Your task to perform on an android device: Open battery settings Image 0: 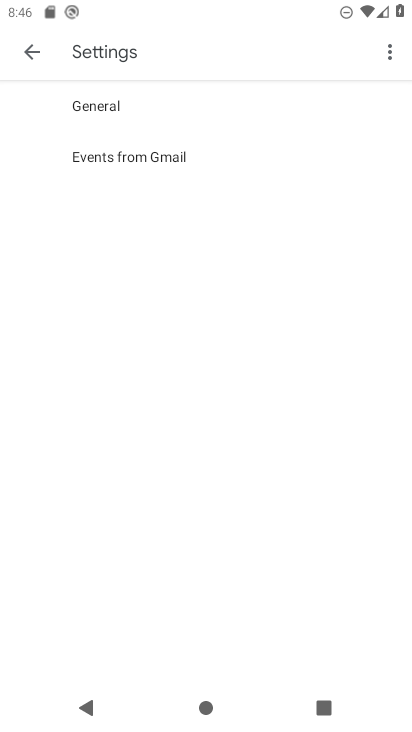
Step 0: press home button
Your task to perform on an android device: Open battery settings Image 1: 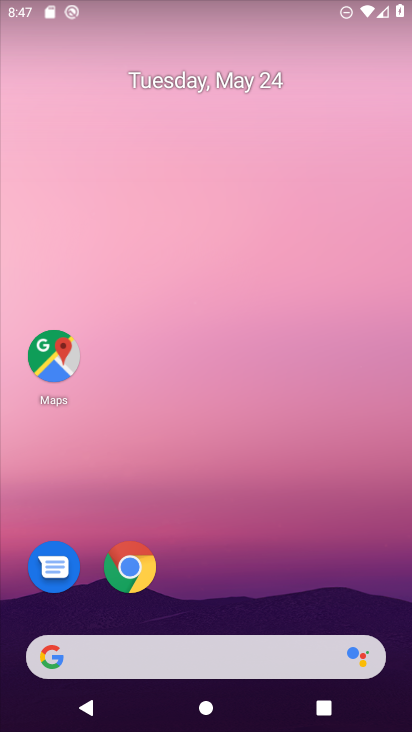
Step 1: drag from (160, 653) to (308, 129)
Your task to perform on an android device: Open battery settings Image 2: 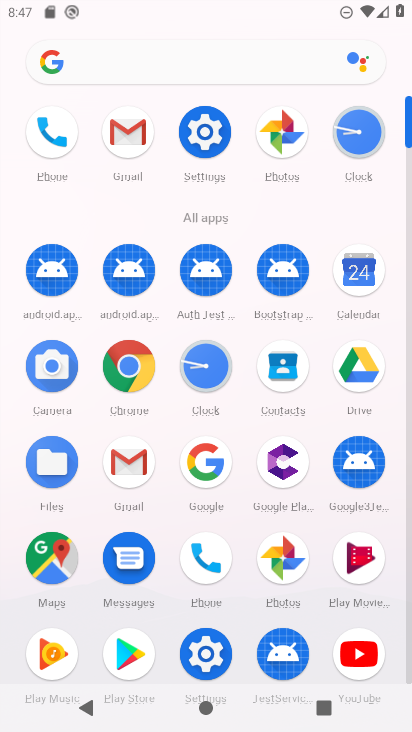
Step 2: click (207, 132)
Your task to perform on an android device: Open battery settings Image 3: 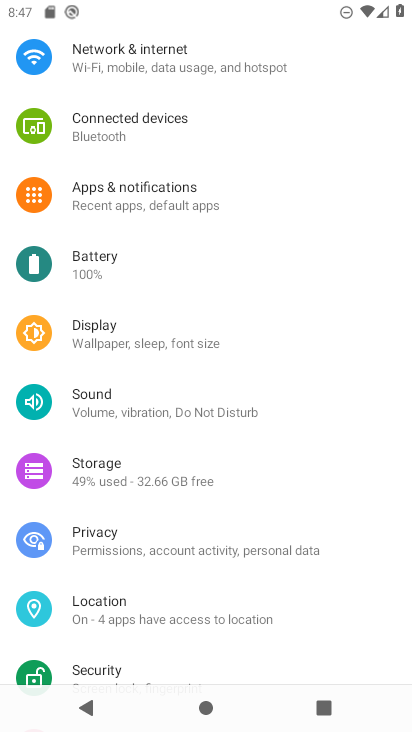
Step 3: click (100, 259)
Your task to perform on an android device: Open battery settings Image 4: 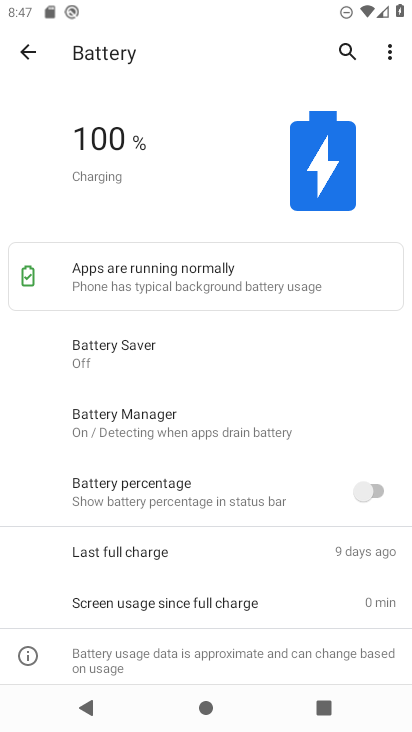
Step 4: task complete